Your task to perform on an android device: Open the calendar and show me this week's events Image 0: 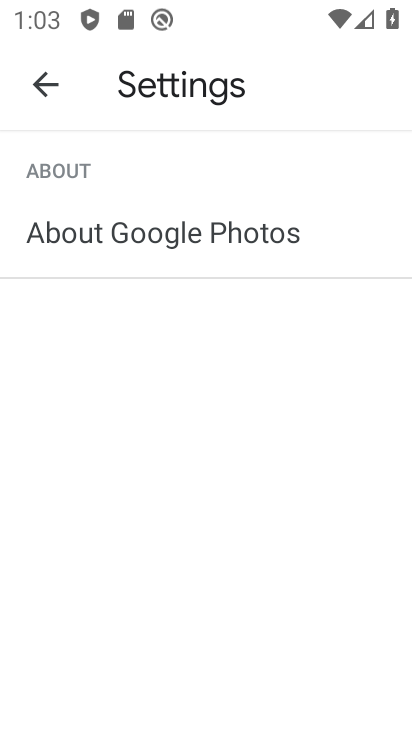
Step 0: press home button
Your task to perform on an android device: Open the calendar and show me this week's events Image 1: 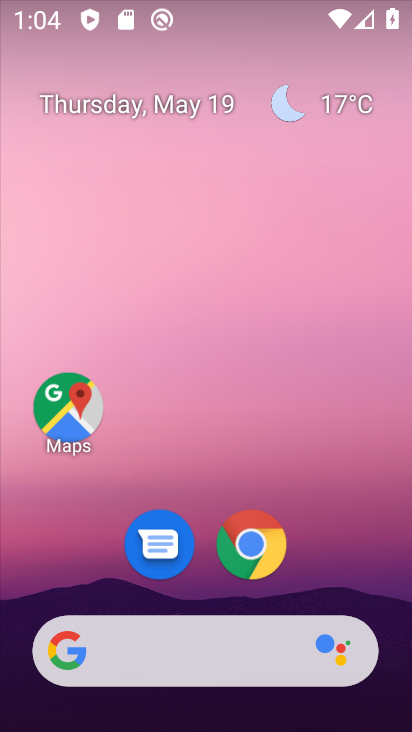
Step 1: drag from (238, 719) to (251, 162)
Your task to perform on an android device: Open the calendar and show me this week's events Image 2: 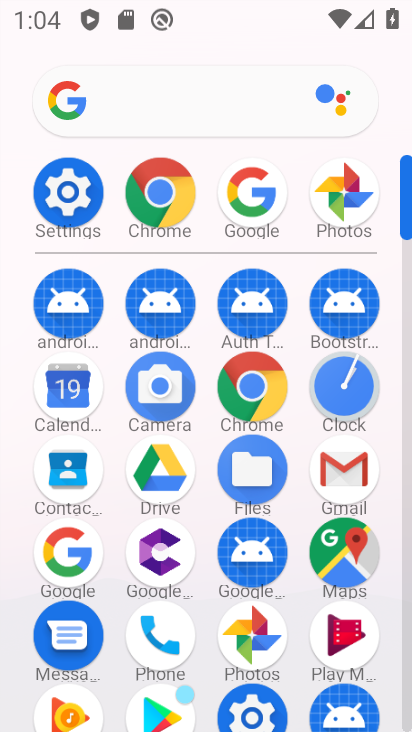
Step 2: click (61, 396)
Your task to perform on an android device: Open the calendar and show me this week's events Image 3: 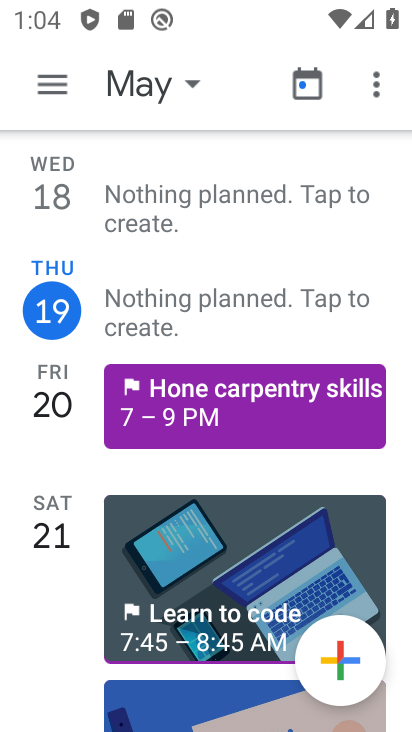
Step 3: click (58, 86)
Your task to perform on an android device: Open the calendar and show me this week's events Image 4: 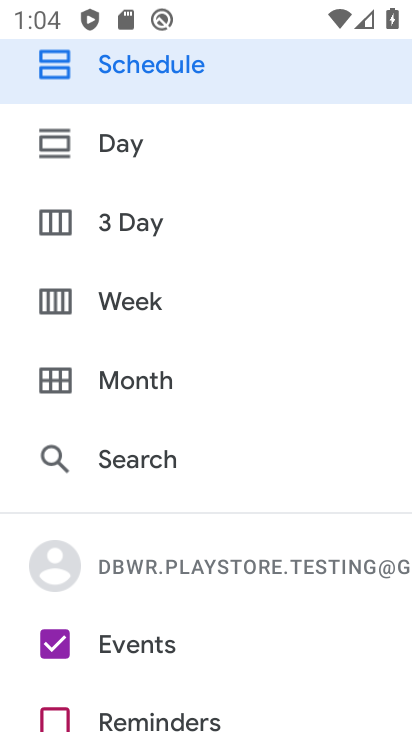
Step 4: click (136, 297)
Your task to perform on an android device: Open the calendar and show me this week's events Image 5: 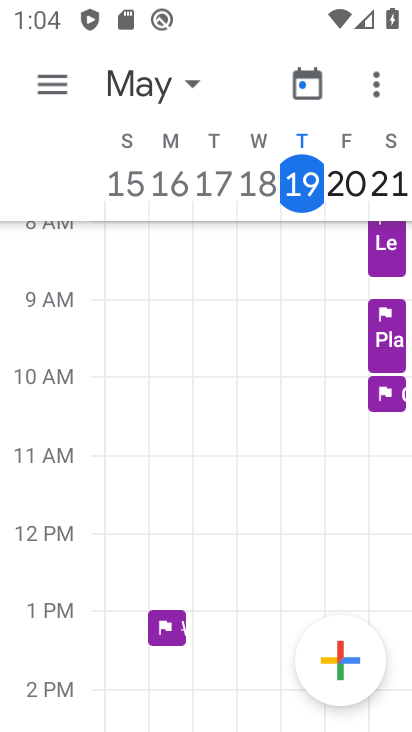
Step 5: task complete